Your task to perform on an android device: Turn on the flashlight Image 0: 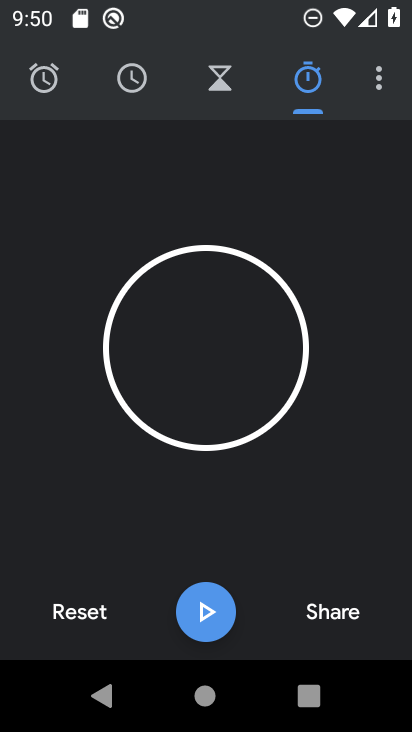
Step 0: press home button
Your task to perform on an android device: Turn on the flashlight Image 1: 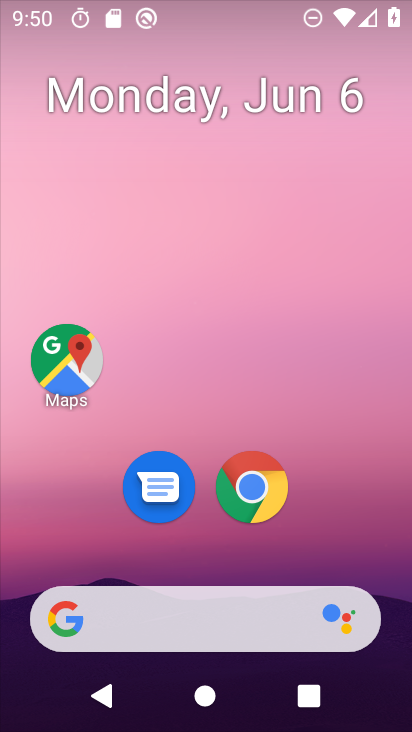
Step 1: drag from (392, 623) to (299, 144)
Your task to perform on an android device: Turn on the flashlight Image 2: 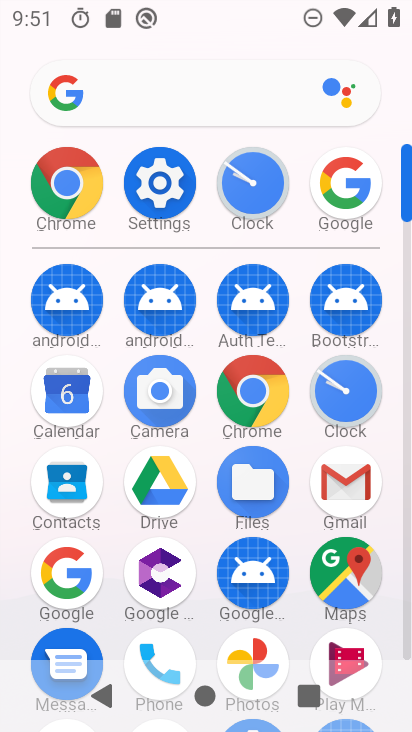
Step 2: click (177, 190)
Your task to perform on an android device: Turn on the flashlight Image 3: 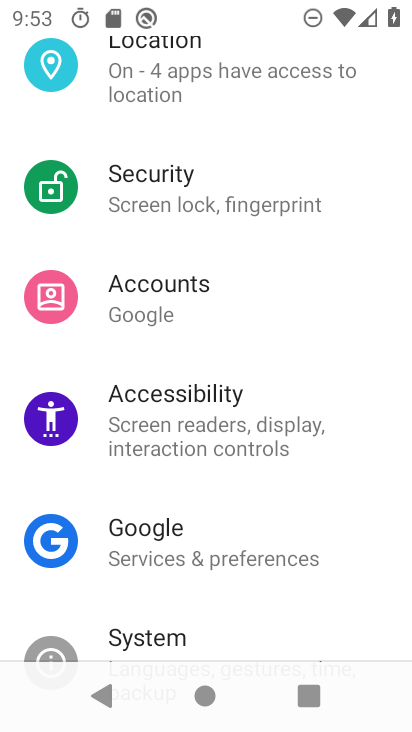
Step 3: task complete